Your task to perform on an android device: Go to Amazon Image 0: 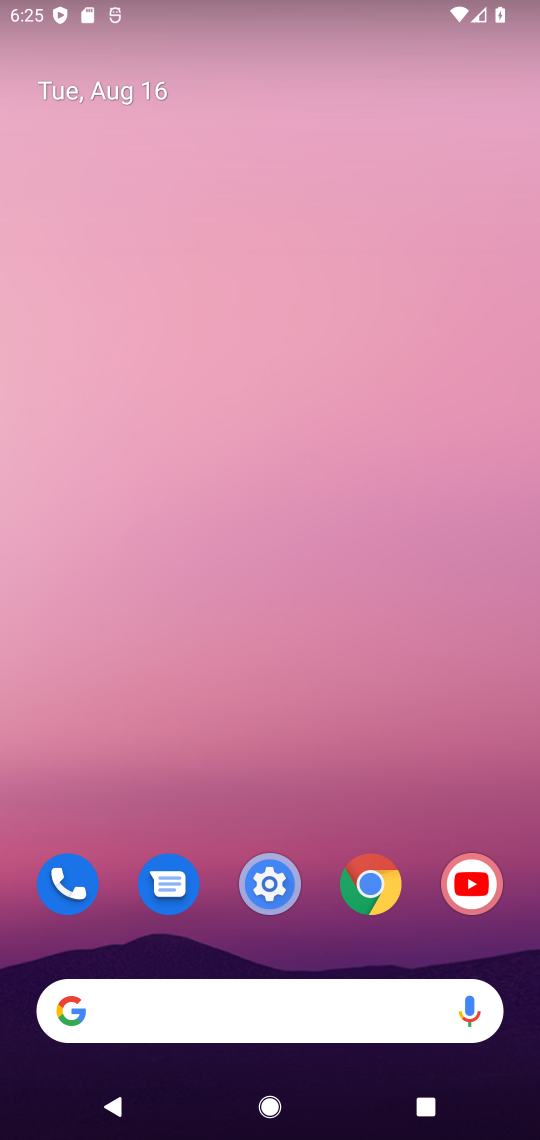
Step 0: press home button
Your task to perform on an android device: Go to Amazon Image 1: 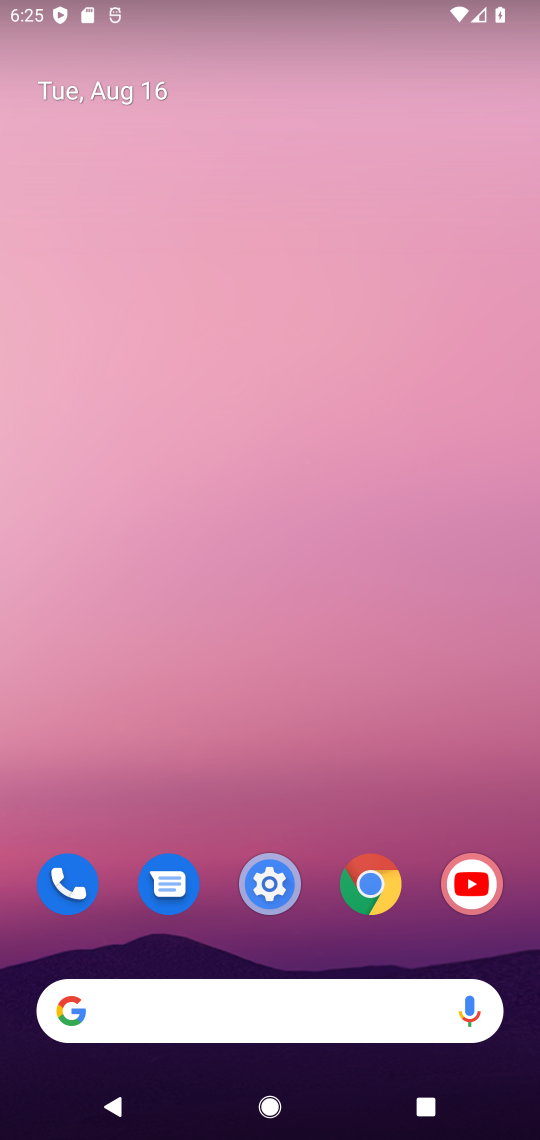
Step 1: click (55, 997)
Your task to perform on an android device: Go to Amazon Image 2: 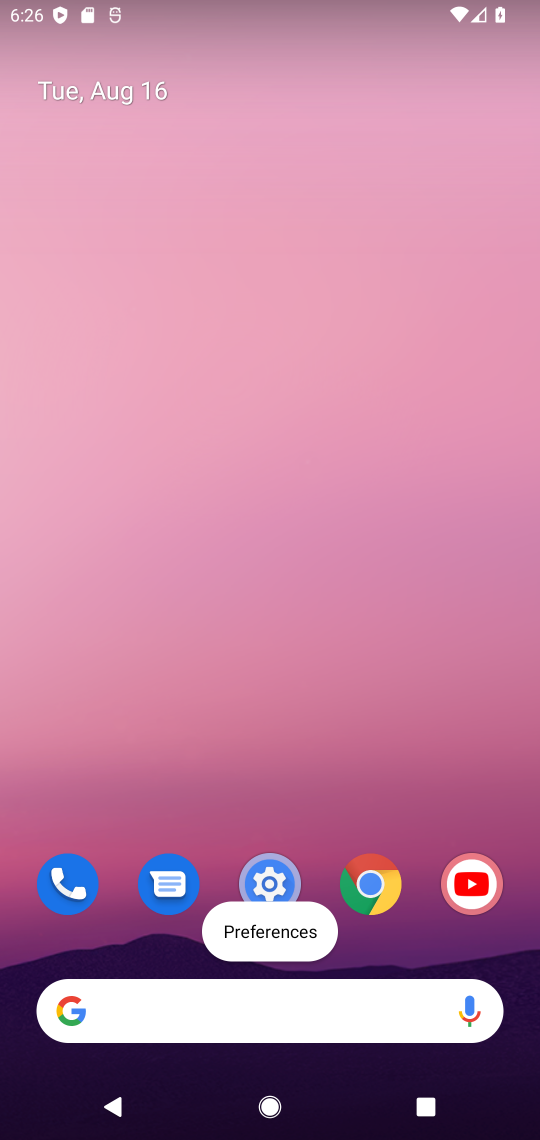
Step 2: click (73, 1026)
Your task to perform on an android device: Go to Amazon Image 3: 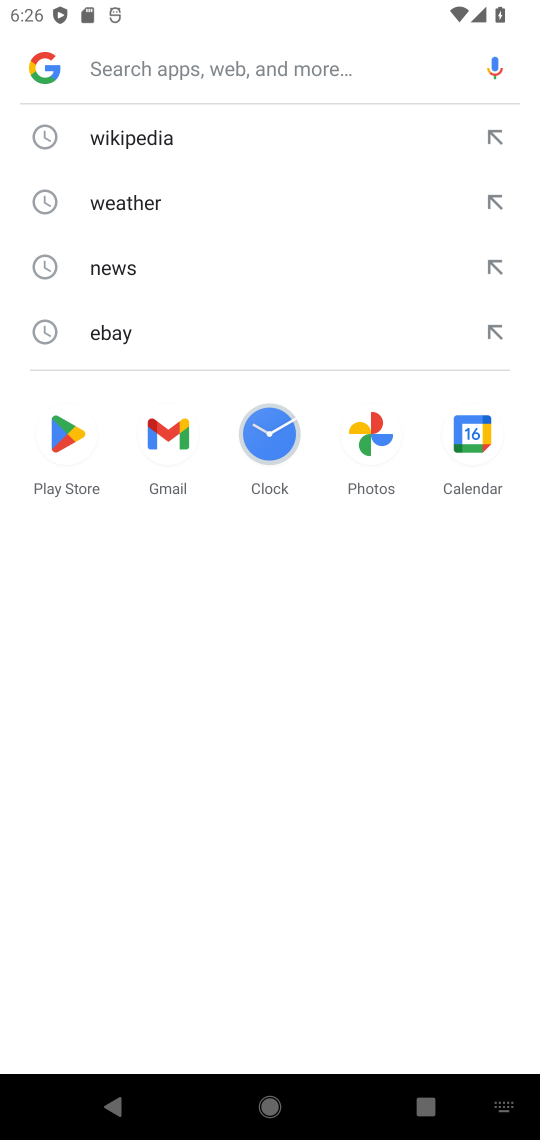
Step 3: type " Amazon"
Your task to perform on an android device: Go to Amazon Image 4: 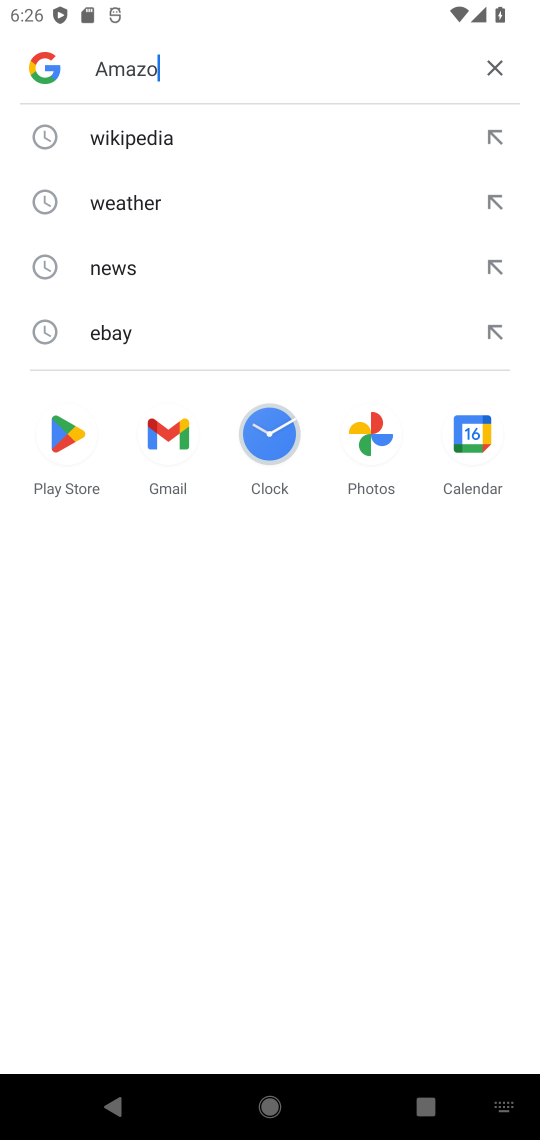
Step 4: press enter
Your task to perform on an android device: Go to Amazon Image 5: 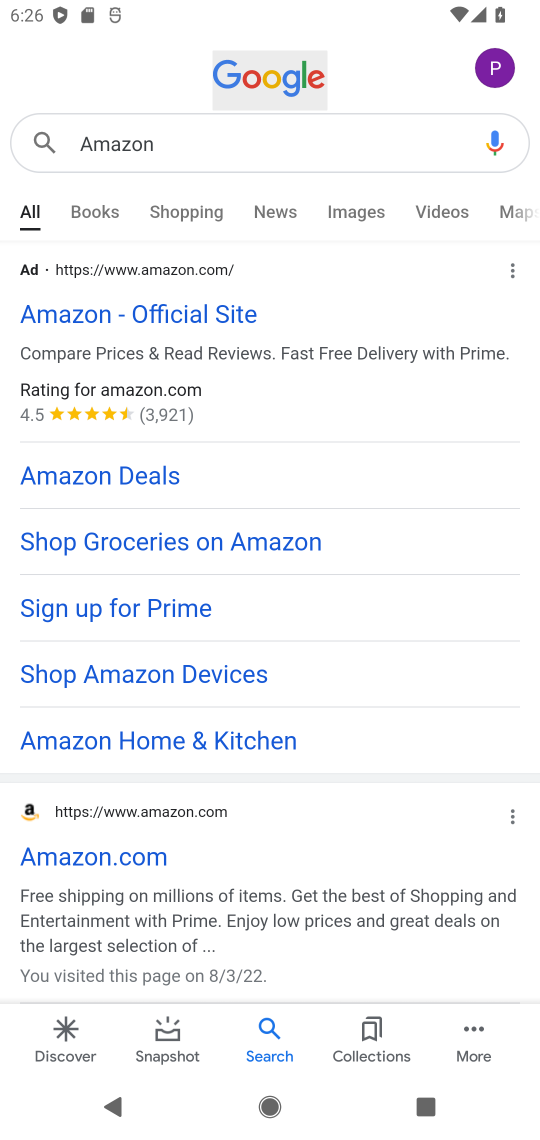
Step 5: click (139, 303)
Your task to perform on an android device: Go to Amazon Image 6: 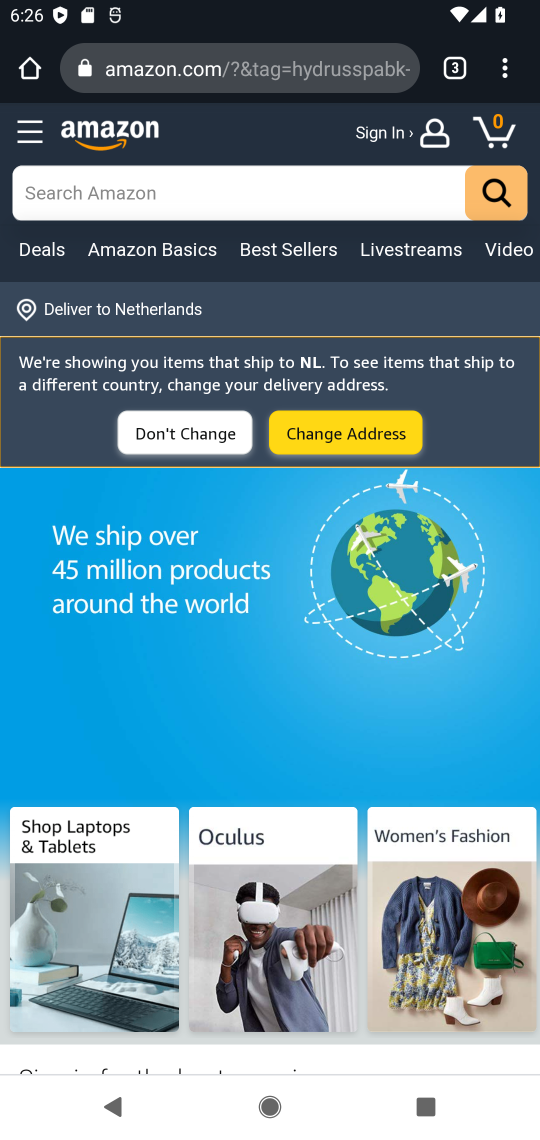
Step 6: task complete